Your task to perform on an android device: Open maps Image 0: 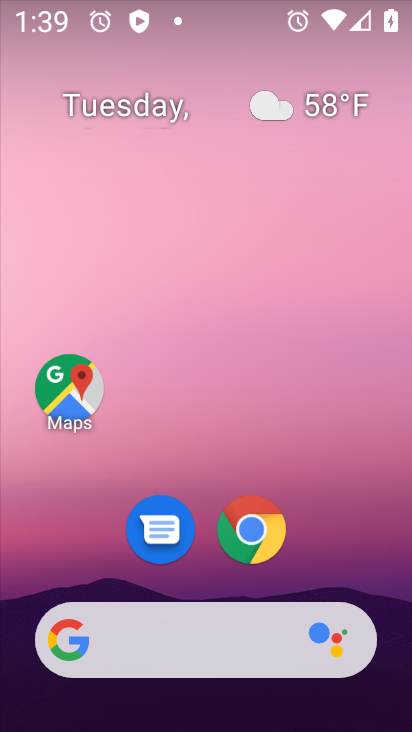
Step 0: drag from (236, 569) to (249, 166)
Your task to perform on an android device: Open maps Image 1: 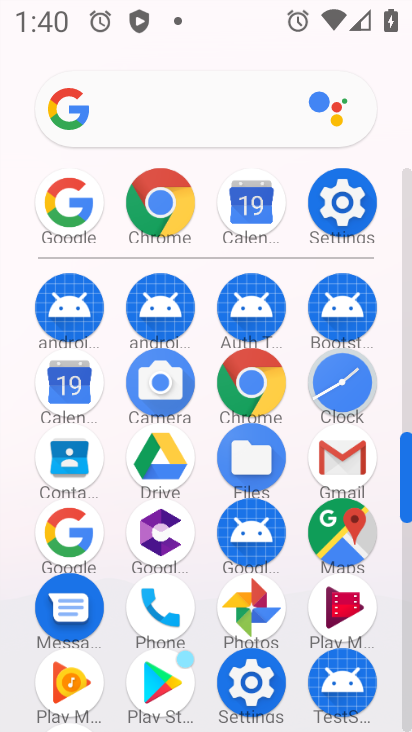
Step 1: click (355, 517)
Your task to perform on an android device: Open maps Image 2: 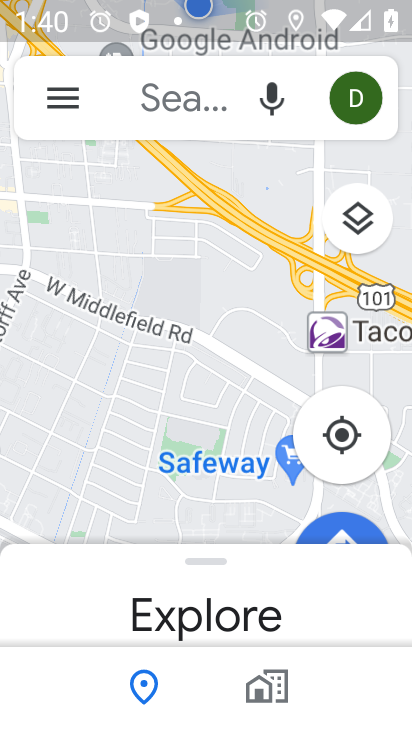
Step 2: task complete